Your task to perform on an android device: Open location settings Image 0: 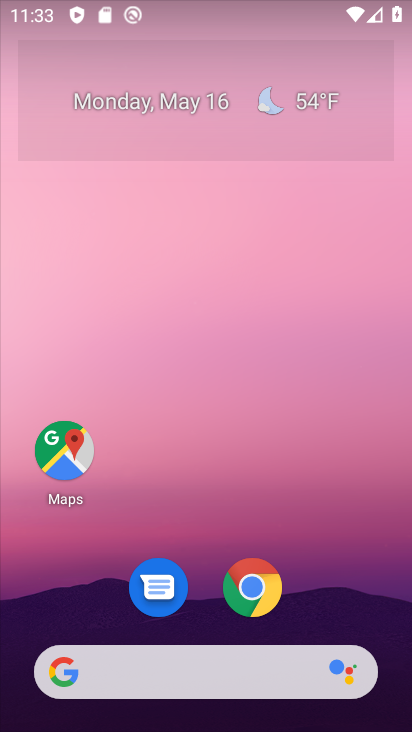
Step 0: drag from (223, 495) to (264, 209)
Your task to perform on an android device: Open location settings Image 1: 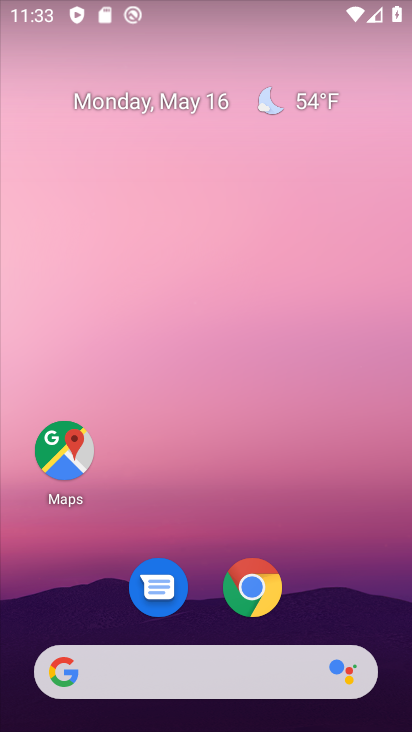
Step 1: drag from (208, 613) to (173, 17)
Your task to perform on an android device: Open location settings Image 2: 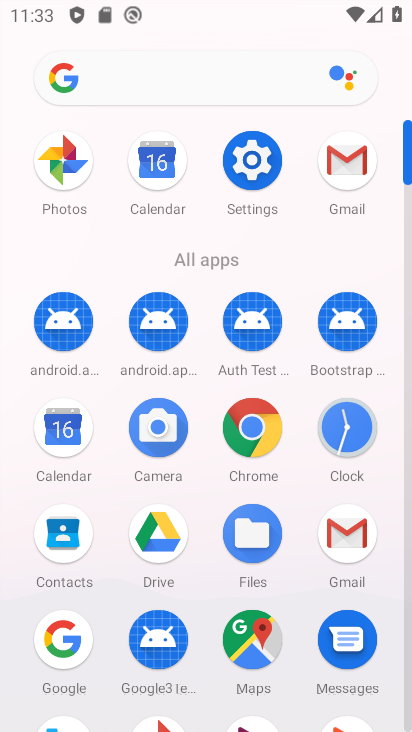
Step 2: click (247, 165)
Your task to perform on an android device: Open location settings Image 3: 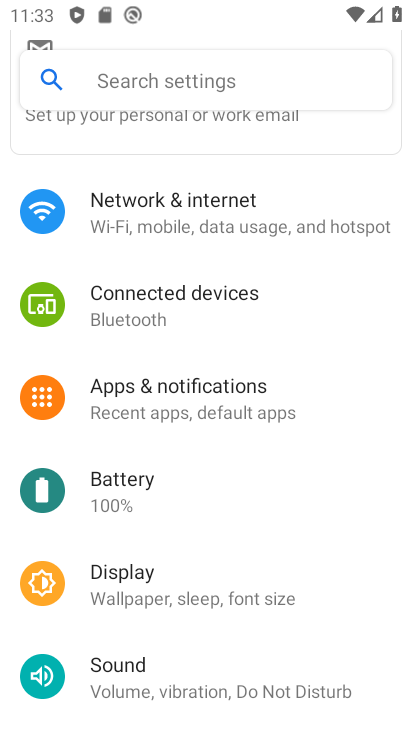
Step 3: drag from (162, 578) to (209, 329)
Your task to perform on an android device: Open location settings Image 4: 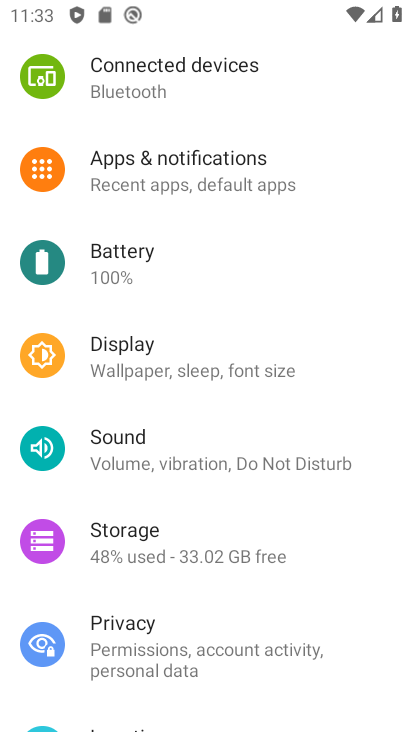
Step 4: drag from (213, 532) to (235, 396)
Your task to perform on an android device: Open location settings Image 5: 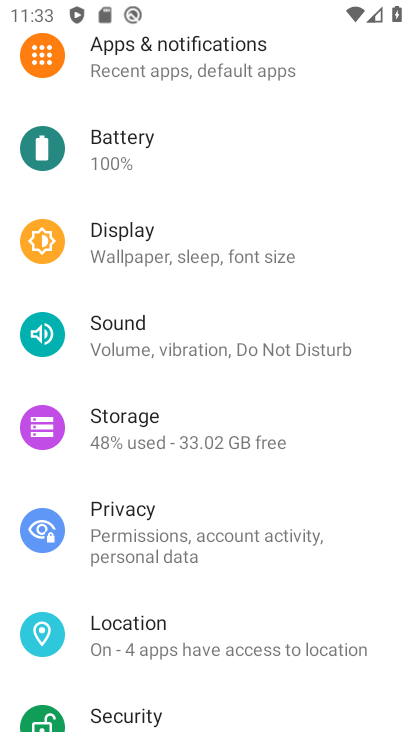
Step 5: click (193, 648)
Your task to perform on an android device: Open location settings Image 6: 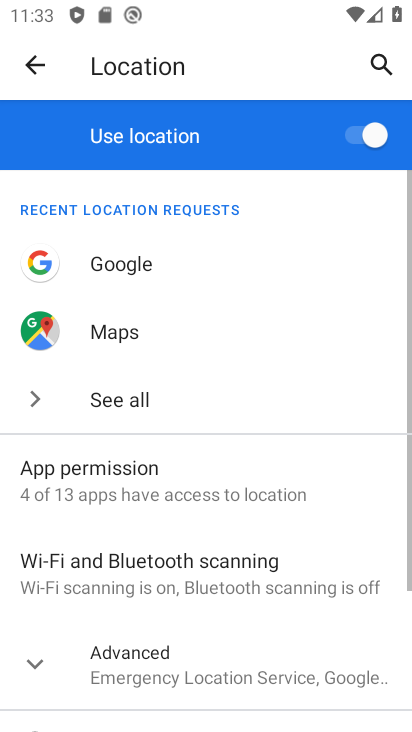
Step 6: task complete